Your task to perform on an android device: Open the stopwatch Image 0: 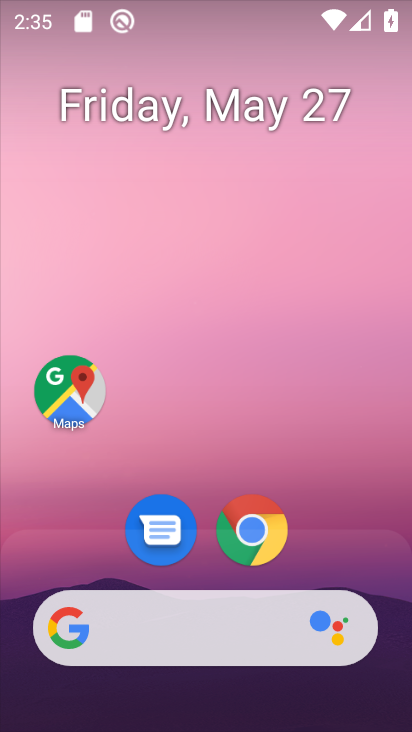
Step 0: drag from (80, 597) to (291, 58)
Your task to perform on an android device: Open the stopwatch Image 1: 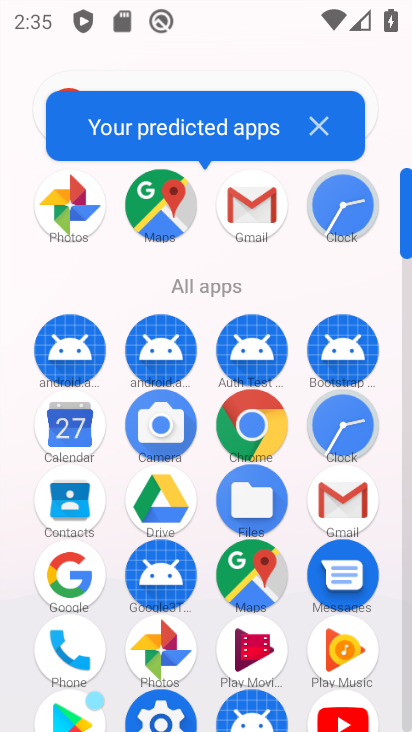
Step 1: click (343, 429)
Your task to perform on an android device: Open the stopwatch Image 2: 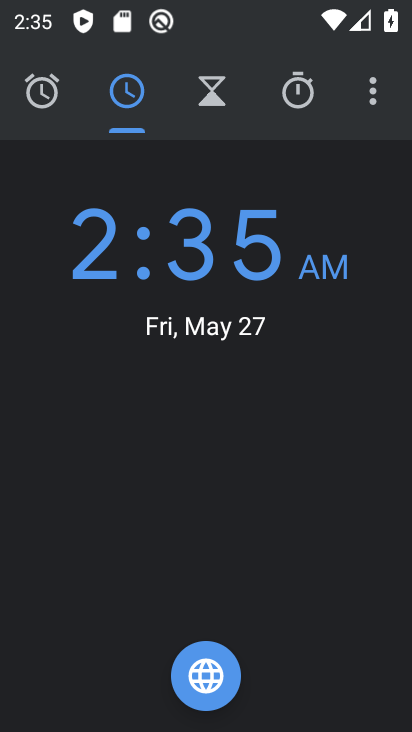
Step 2: click (306, 102)
Your task to perform on an android device: Open the stopwatch Image 3: 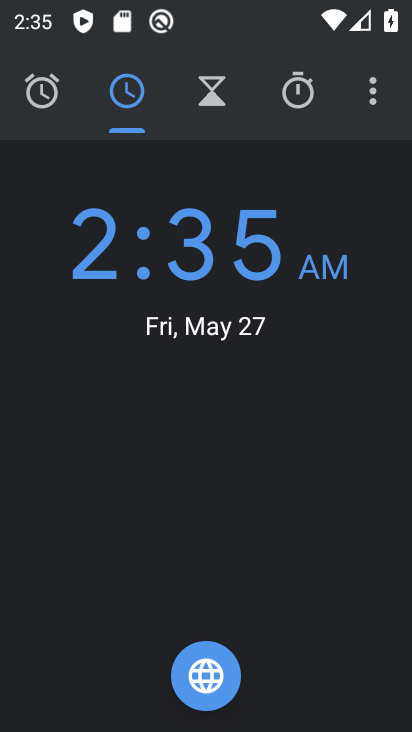
Step 3: click (299, 114)
Your task to perform on an android device: Open the stopwatch Image 4: 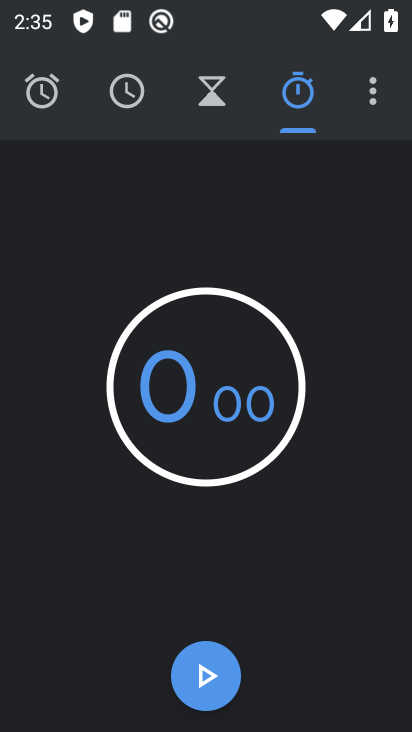
Step 4: task complete